Your task to perform on an android device: Is it going to rain tomorrow? Image 0: 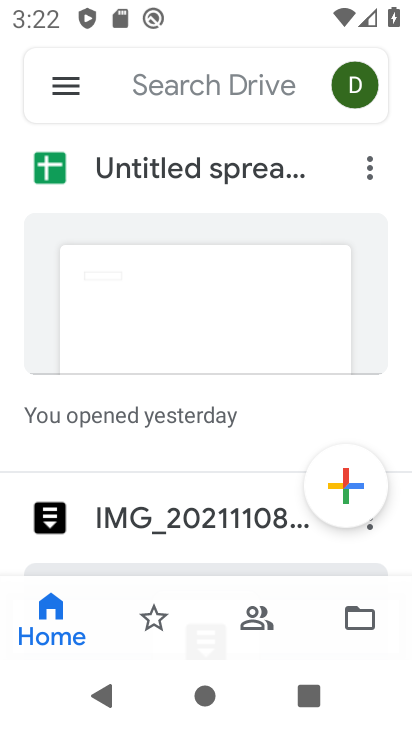
Step 0: press home button
Your task to perform on an android device: Is it going to rain tomorrow? Image 1: 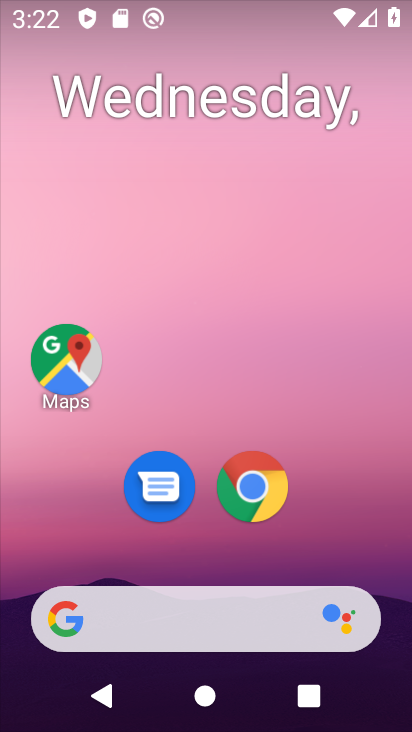
Step 1: drag from (175, 589) to (198, 226)
Your task to perform on an android device: Is it going to rain tomorrow? Image 2: 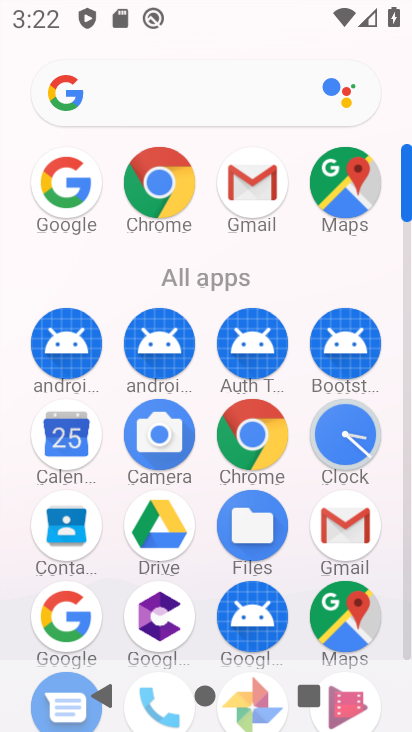
Step 2: click (76, 189)
Your task to perform on an android device: Is it going to rain tomorrow? Image 3: 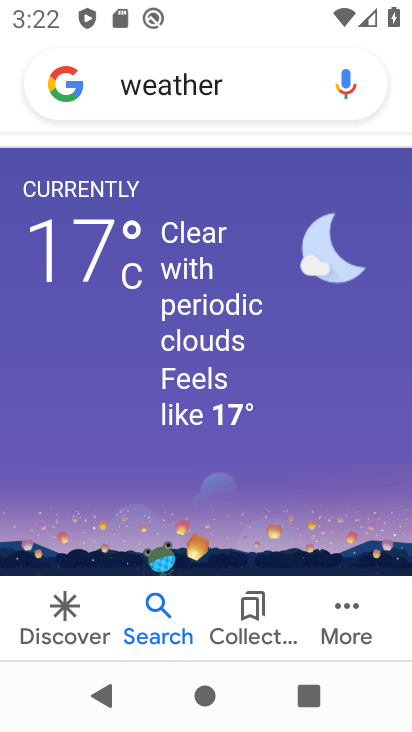
Step 3: drag from (141, 497) to (142, 142)
Your task to perform on an android device: Is it going to rain tomorrow? Image 4: 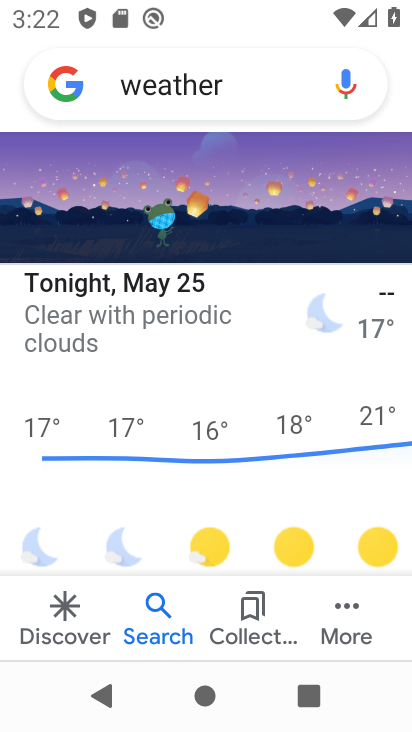
Step 4: click (160, 74)
Your task to perform on an android device: Is it going to rain tomorrow? Image 5: 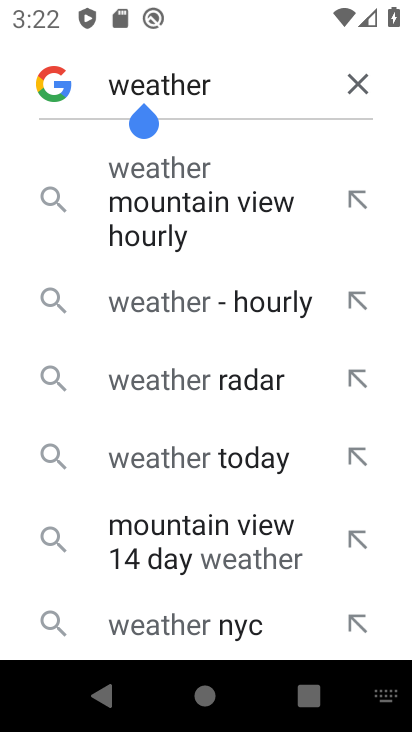
Step 5: click (360, 84)
Your task to perform on an android device: Is it going to rain tomorrow? Image 6: 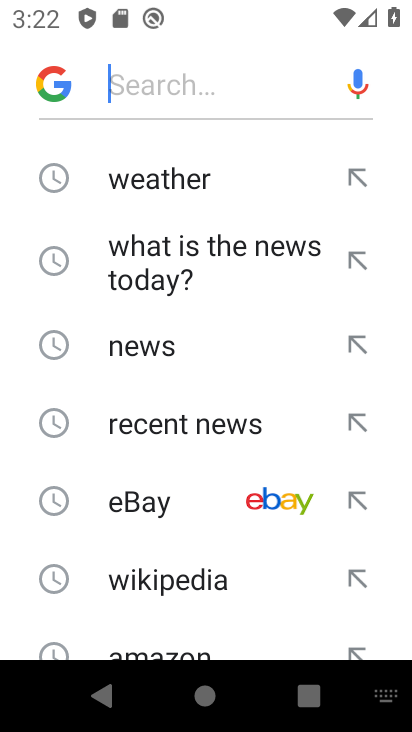
Step 6: drag from (171, 576) to (177, 186)
Your task to perform on an android device: Is it going to rain tomorrow? Image 7: 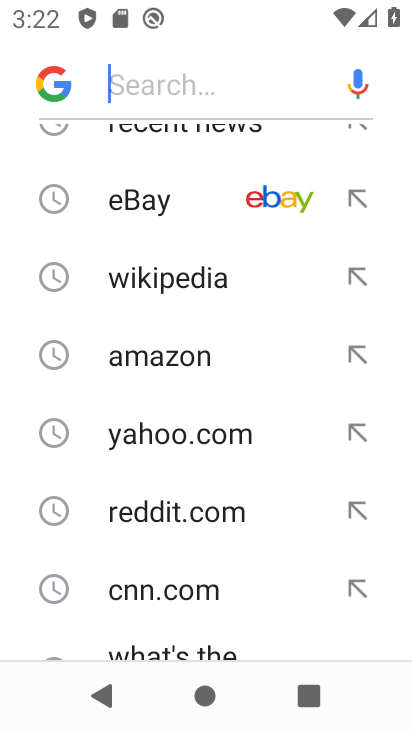
Step 7: drag from (146, 560) to (163, 218)
Your task to perform on an android device: Is it going to rain tomorrow? Image 8: 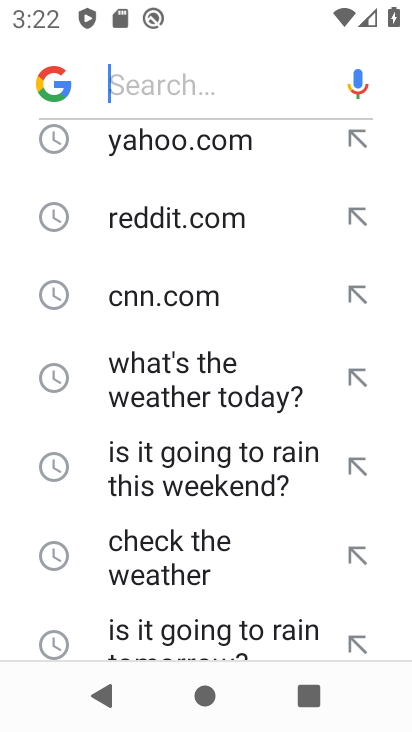
Step 8: click (167, 462)
Your task to perform on an android device: Is it going to rain tomorrow? Image 9: 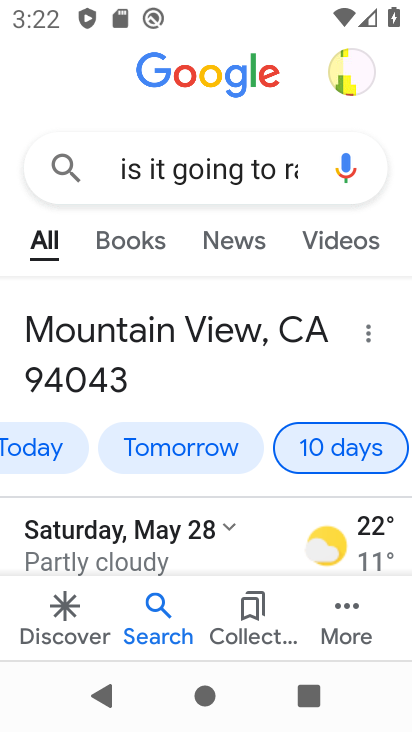
Step 9: click (190, 442)
Your task to perform on an android device: Is it going to rain tomorrow? Image 10: 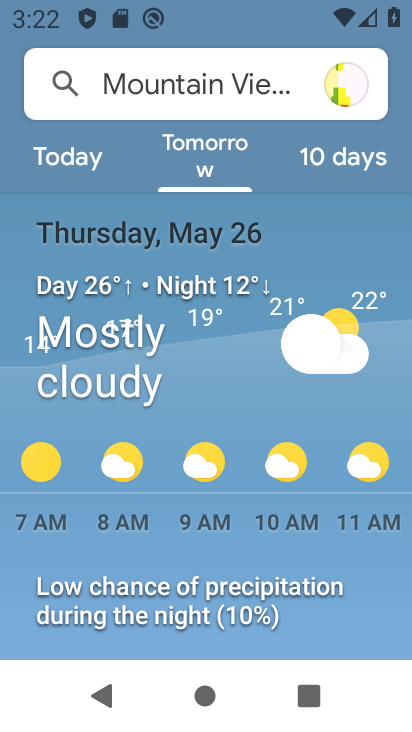
Step 10: task complete